Your task to perform on an android device: Open sound settings Image 0: 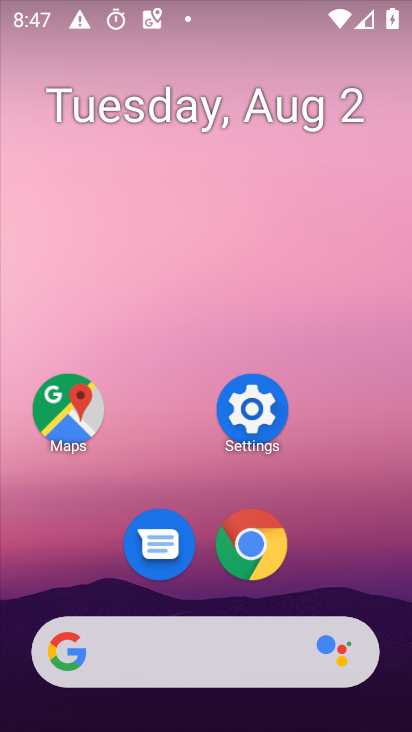
Step 0: press home button
Your task to perform on an android device: Open sound settings Image 1: 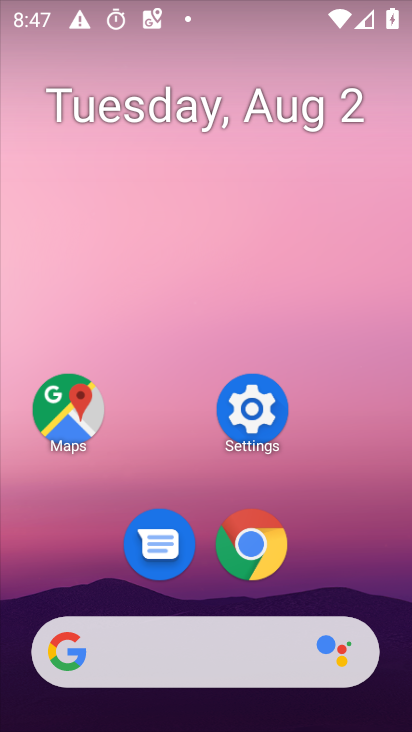
Step 1: click (260, 406)
Your task to perform on an android device: Open sound settings Image 2: 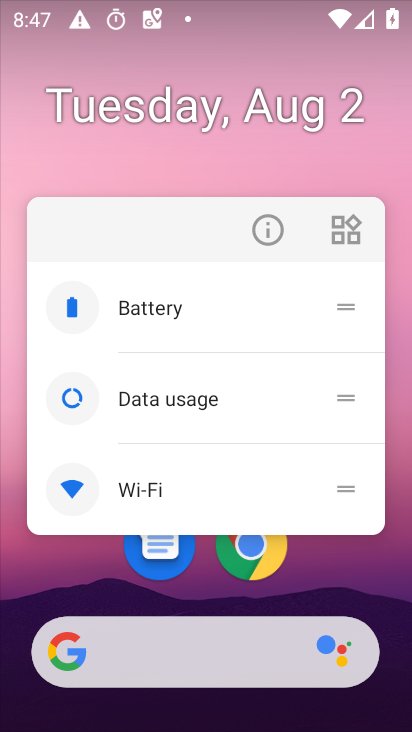
Step 2: click (330, 559)
Your task to perform on an android device: Open sound settings Image 3: 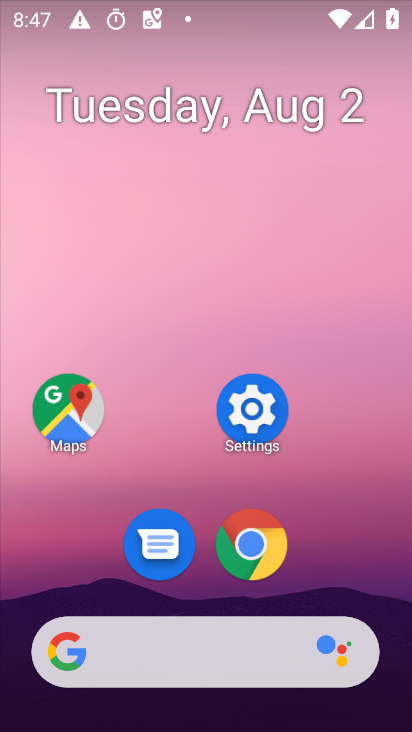
Step 3: click (258, 419)
Your task to perform on an android device: Open sound settings Image 4: 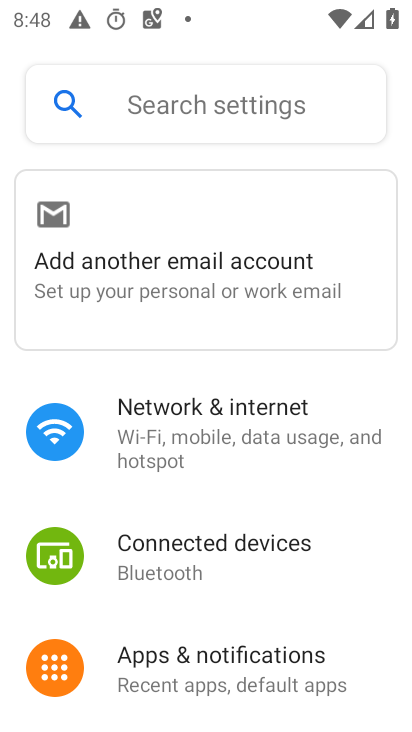
Step 4: drag from (210, 623) to (384, 65)
Your task to perform on an android device: Open sound settings Image 5: 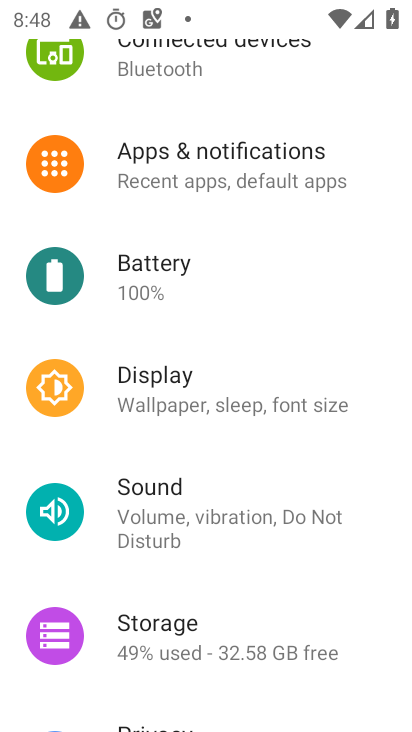
Step 5: click (144, 514)
Your task to perform on an android device: Open sound settings Image 6: 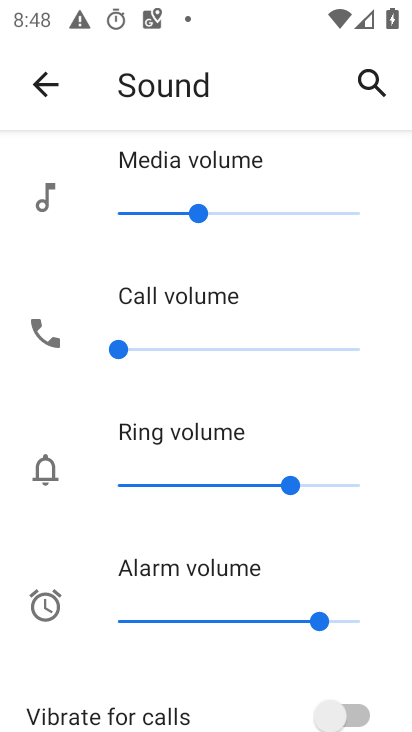
Step 6: task complete